Your task to perform on an android device: Go to Amazon Image 0: 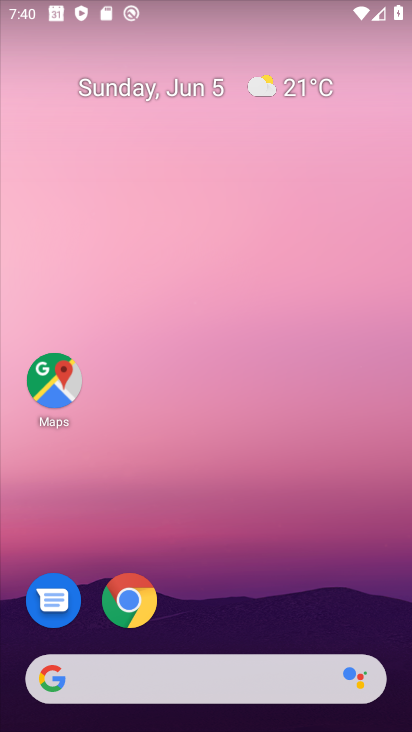
Step 0: click (139, 604)
Your task to perform on an android device: Go to Amazon Image 1: 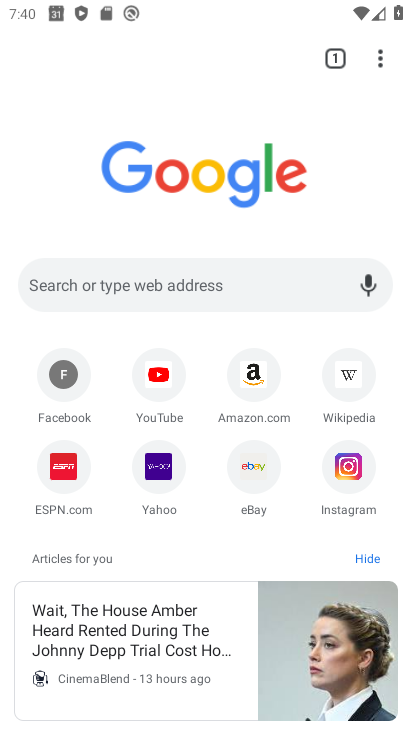
Step 1: click (250, 376)
Your task to perform on an android device: Go to Amazon Image 2: 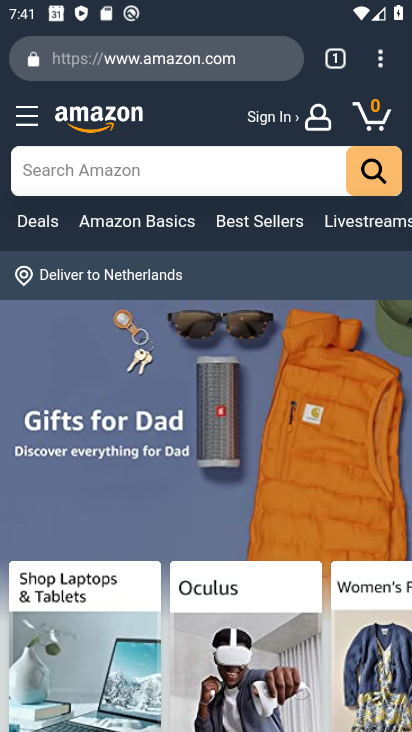
Step 2: task complete